Your task to perform on an android device: Go to Yahoo.com Image 0: 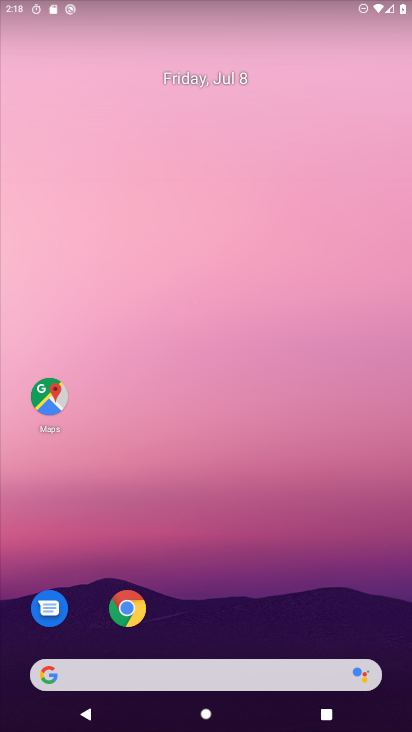
Step 0: click (126, 611)
Your task to perform on an android device: Go to Yahoo.com Image 1: 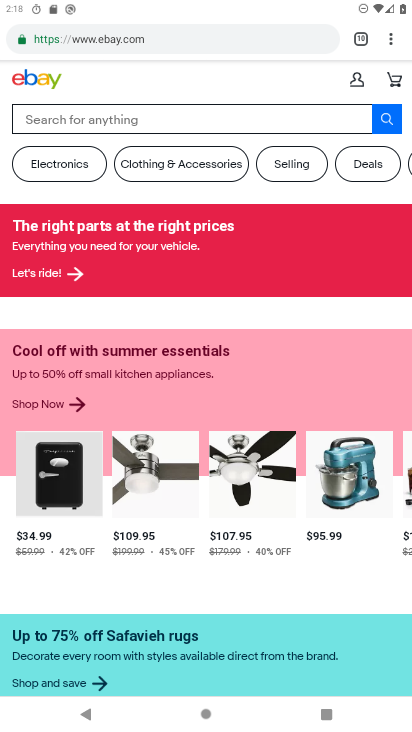
Step 1: click (391, 43)
Your task to perform on an android device: Go to Yahoo.com Image 2: 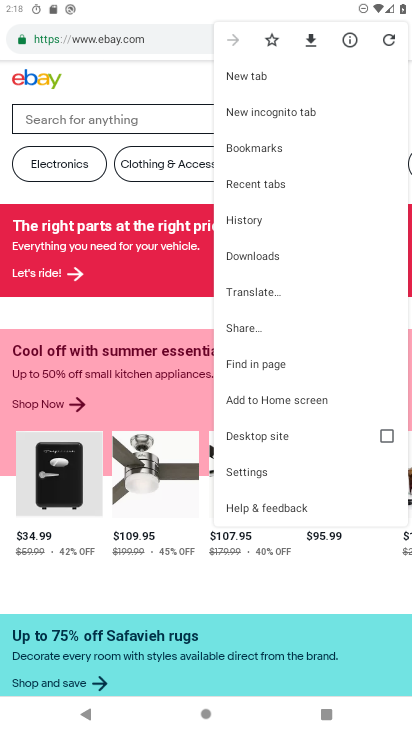
Step 2: click (245, 72)
Your task to perform on an android device: Go to Yahoo.com Image 3: 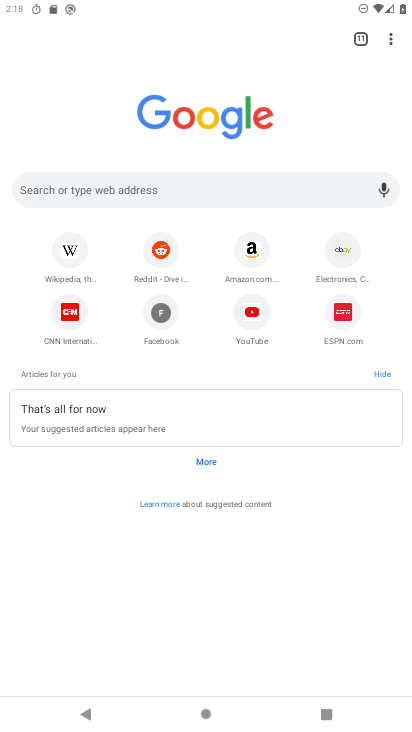
Step 3: click (208, 189)
Your task to perform on an android device: Go to Yahoo.com Image 4: 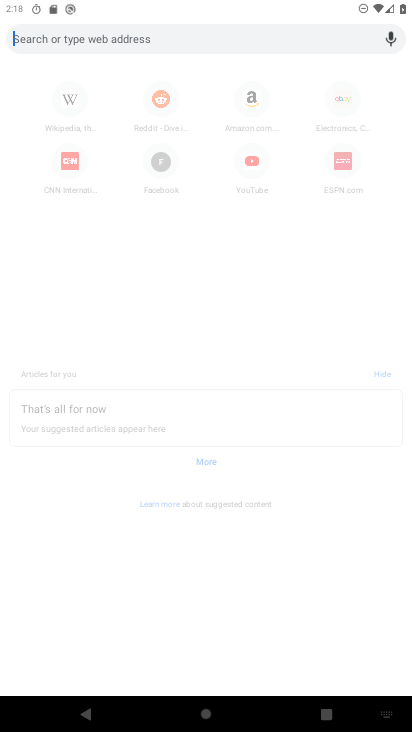
Step 4: type "Yahoo.com"
Your task to perform on an android device: Go to Yahoo.com Image 5: 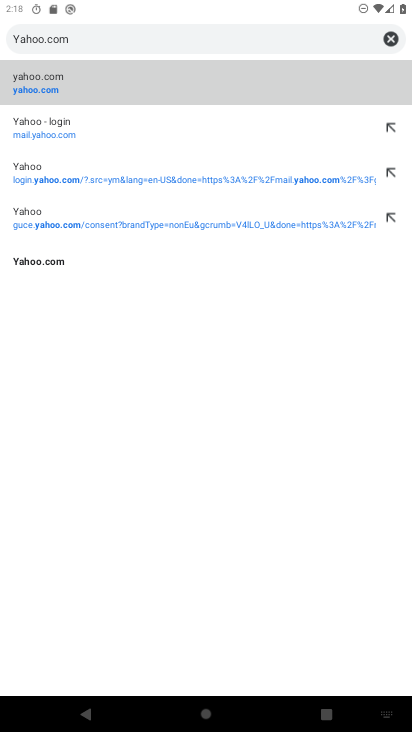
Step 5: click (41, 80)
Your task to perform on an android device: Go to Yahoo.com Image 6: 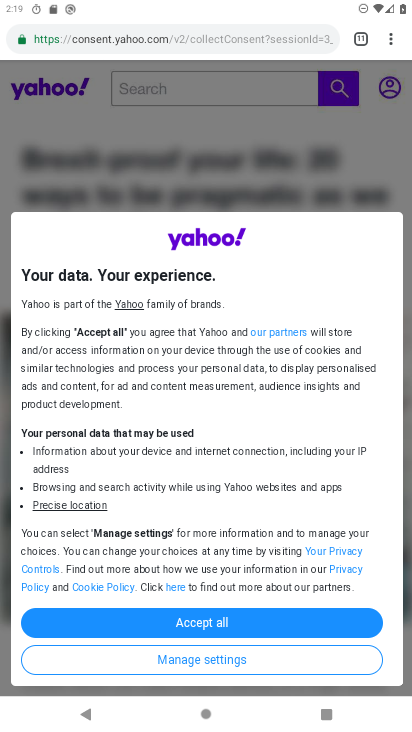
Step 6: click (195, 616)
Your task to perform on an android device: Go to Yahoo.com Image 7: 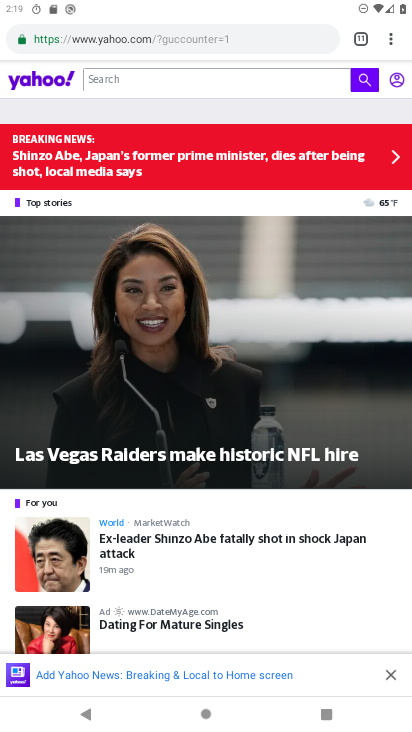
Step 7: task complete